Your task to perform on an android device: Open battery settings Image 0: 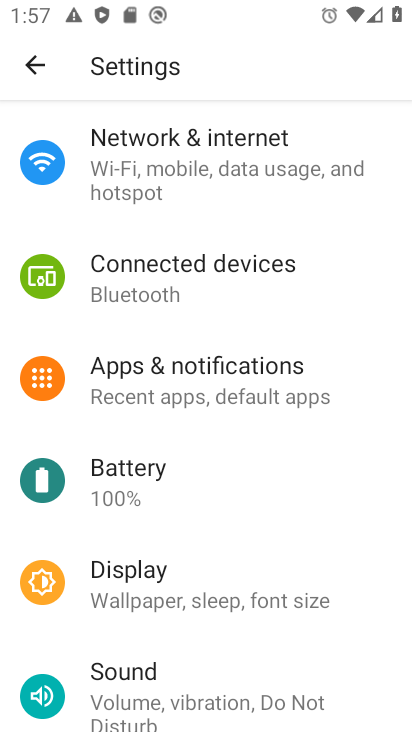
Step 0: click (204, 486)
Your task to perform on an android device: Open battery settings Image 1: 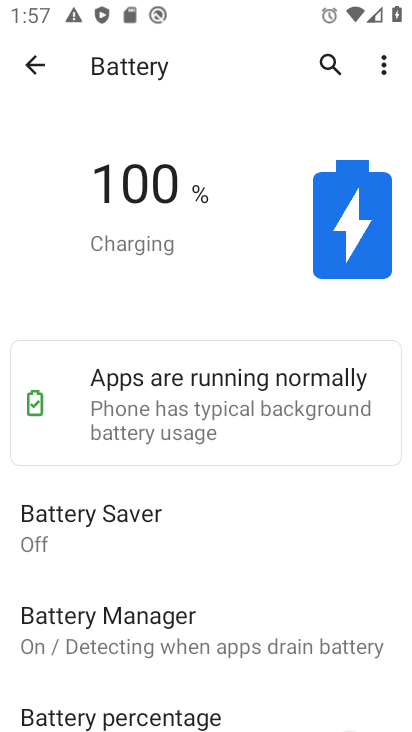
Step 1: task complete